Your task to perform on an android device: Open Chrome and go to settings Image 0: 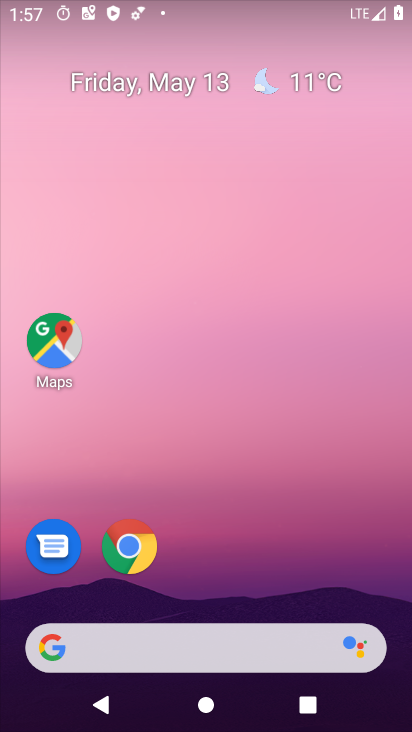
Step 0: drag from (271, 485) to (275, 124)
Your task to perform on an android device: Open Chrome and go to settings Image 1: 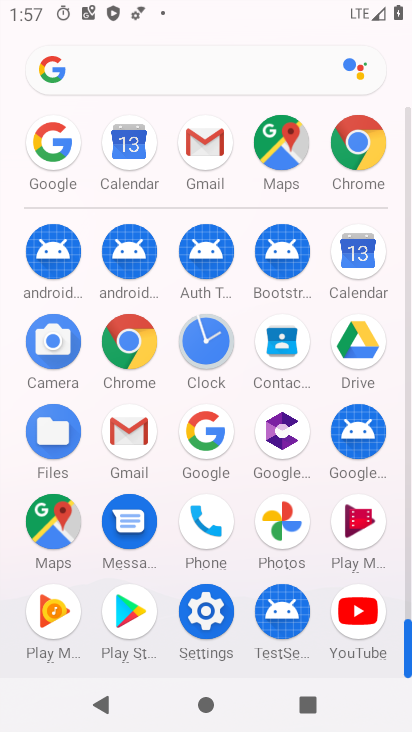
Step 1: click (208, 608)
Your task to perform on an android device: Open Chrome and go to settings Image 2: 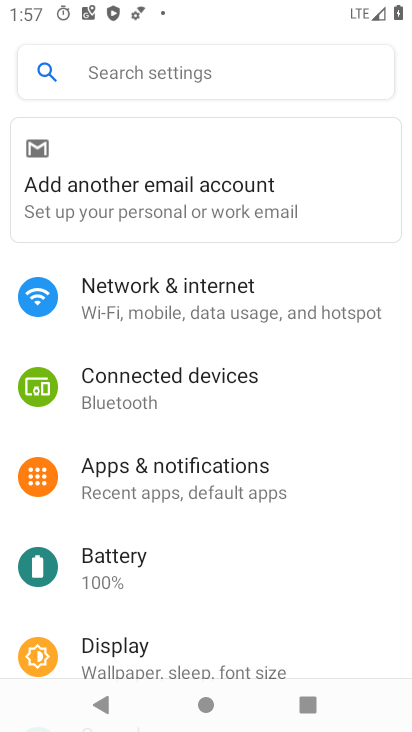
Step 2: drag from (186, 524) to (180, 337)
Your task to perform on an android device: Open Chrome and go to settings Image 3: 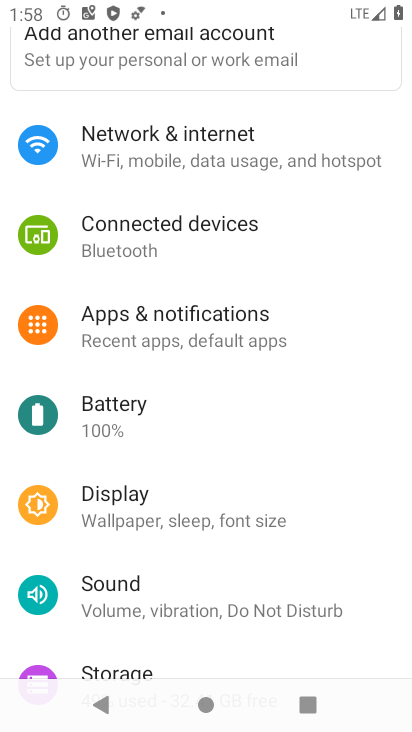
Step 3: drag from (187, 458) to (228, 288)
Your task to perform on an android device: Open Chrome and go to settings Image 4: 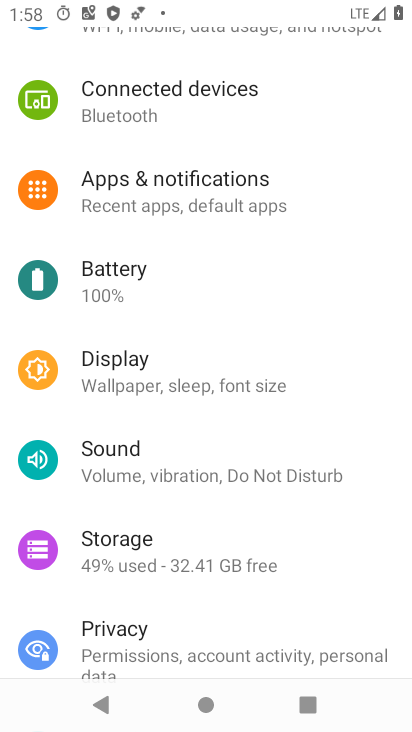
Step 4: drag from (174, 503) to (193, 295)
Your task to perform on an android device: Open Chrome and go to settings Image 5: 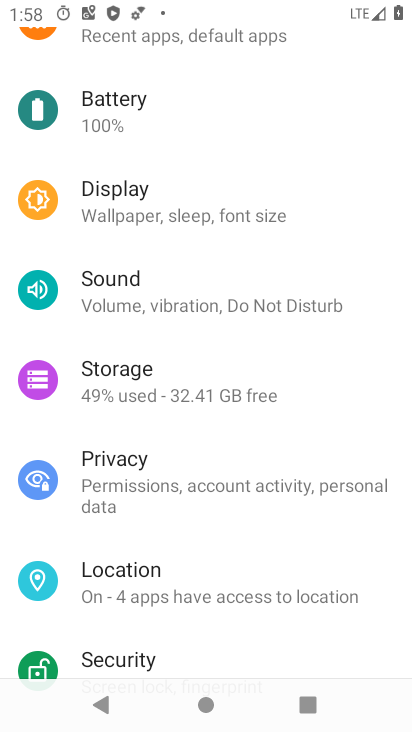
Step 5: drag from (202, 249) to (209, 595)
Your task to perform on an android device: Open Chrome and go to settings Image 6: 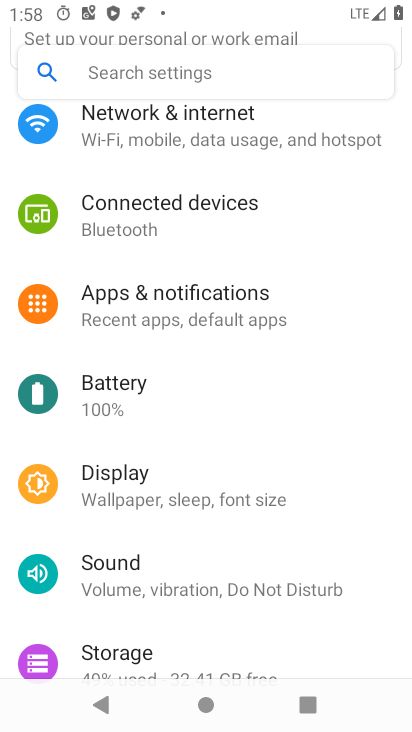
Step 6: drag from (191, 447) to (186, 650)
Your task to perform on an android device: Open Chrome and go to settings Image 7: 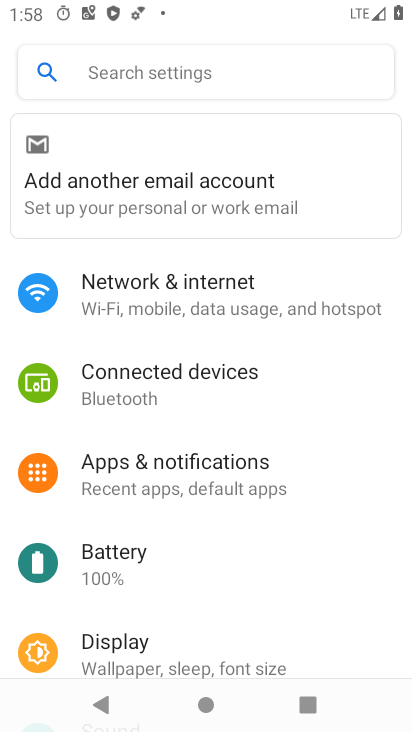
Step 7: press home button
Your task to perform on an android device: Open Chrome and go to settings Image 8: 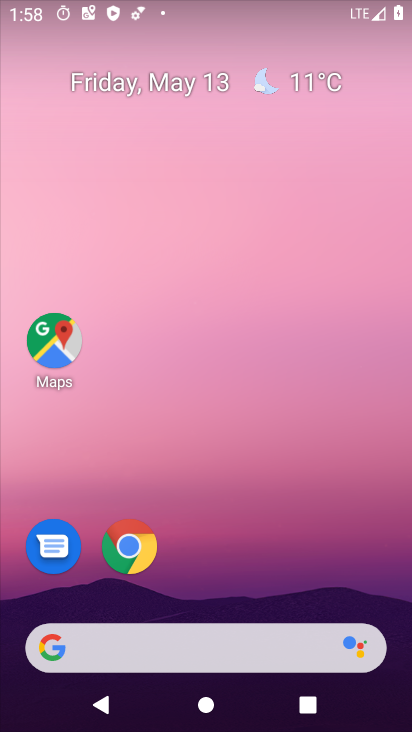
Step 8: click (134, 565)
Your task to perform on an android device: Open Chrome and go to settings Image 9: 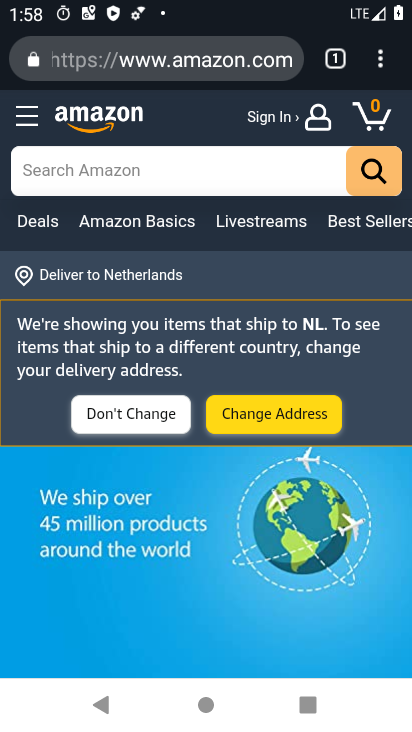
Step 9: click (398, 51)
Your task to perform on an android device: Open Chrome and go to settings Image 10: 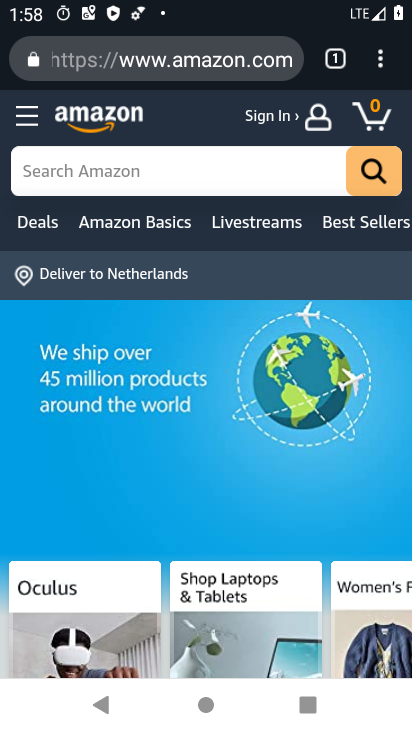
Step 10: click (383, 59)
Your task to perform on an android device: Open Chrome and go to settings Image 11: 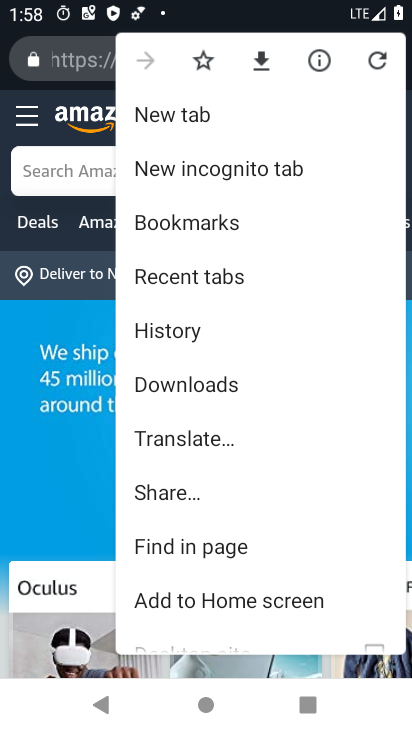
Step 11: drag from (227, 491) to (258, 214)
Your task to perform on an android device: Open Chrome and go to settings Image 12: 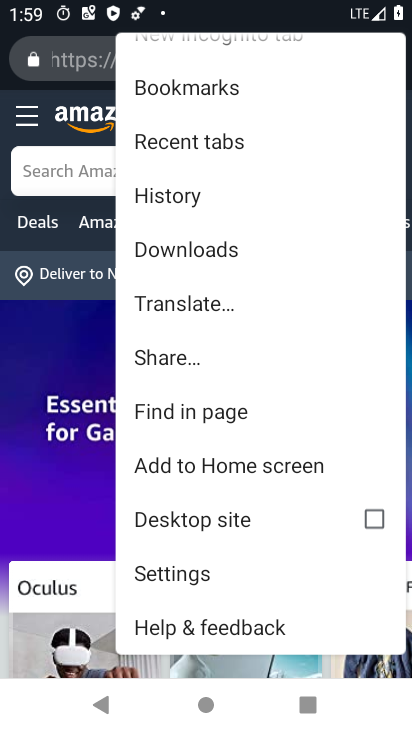
Step 12: click (182, 566)
Your task to perform on an android device: Open Chrome and go to settings Image 13: 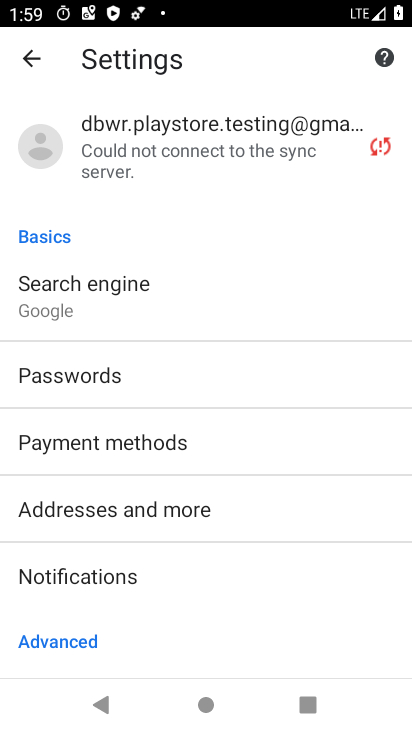
Step 13: task complete